Your task to perform on an android device: turn off wifi Image 0: 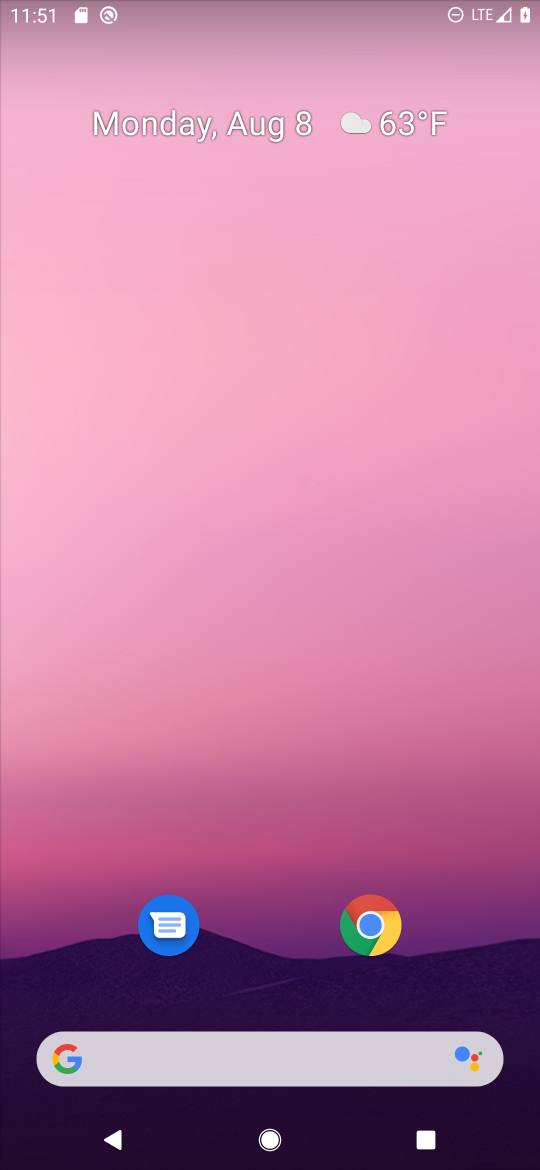
Step 0: drag from (265, 631) to (311, 104)
Your task to perform on an android device: turn off wifi Image 1: 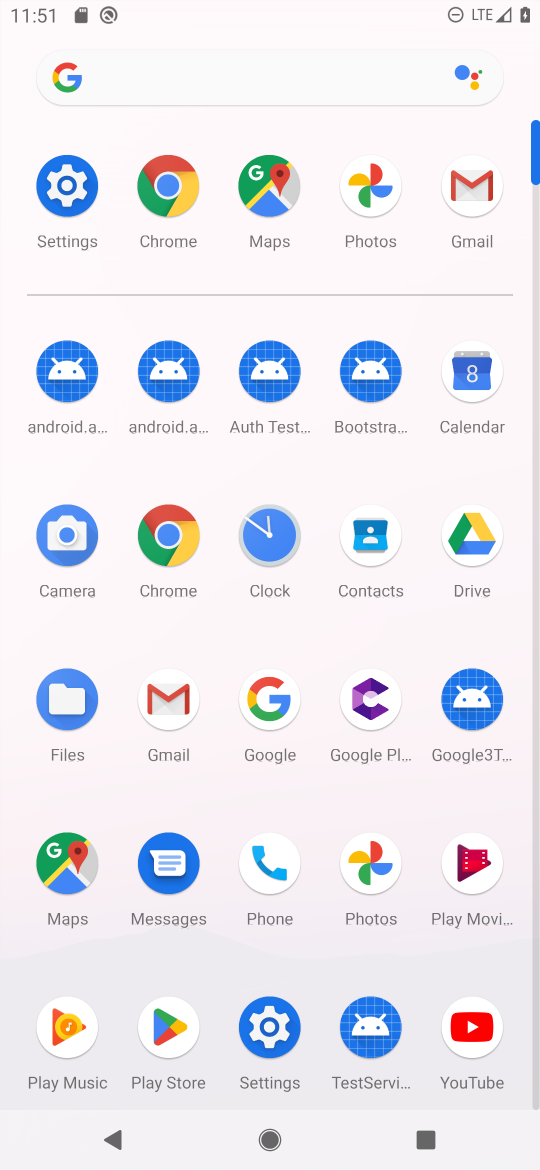
Step 1: click (271, 1036)
Your task to perform on an android device: turn off wifi Image 2: 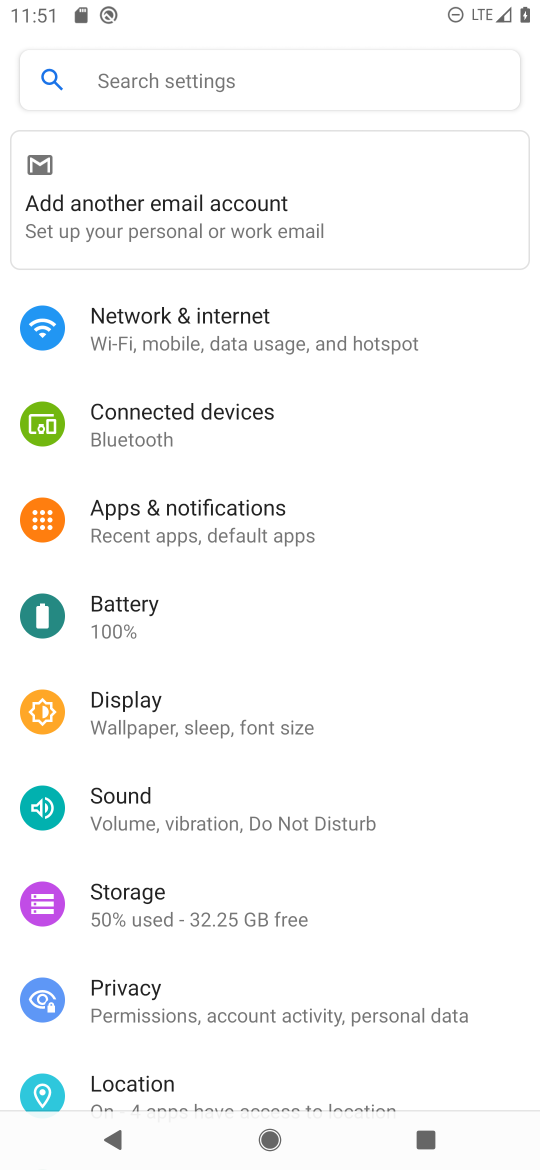
Step 2: click (149, 333)
Your task to perform on an android device: turn off wifi Image 3: 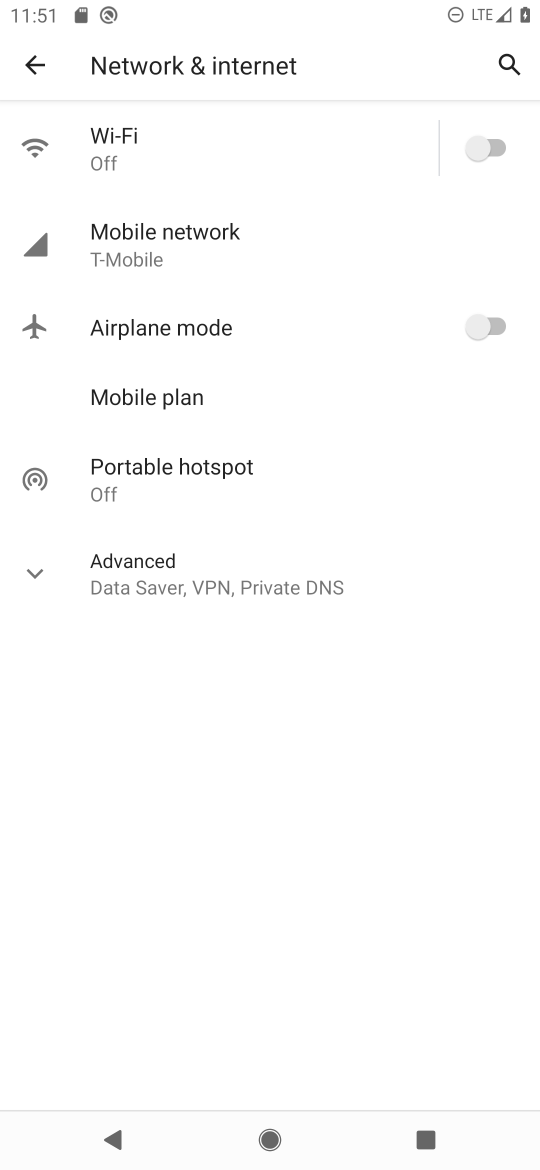
Step 3: click (180, 143)
Your task to perform on an android device: turn off wifi Image 4: 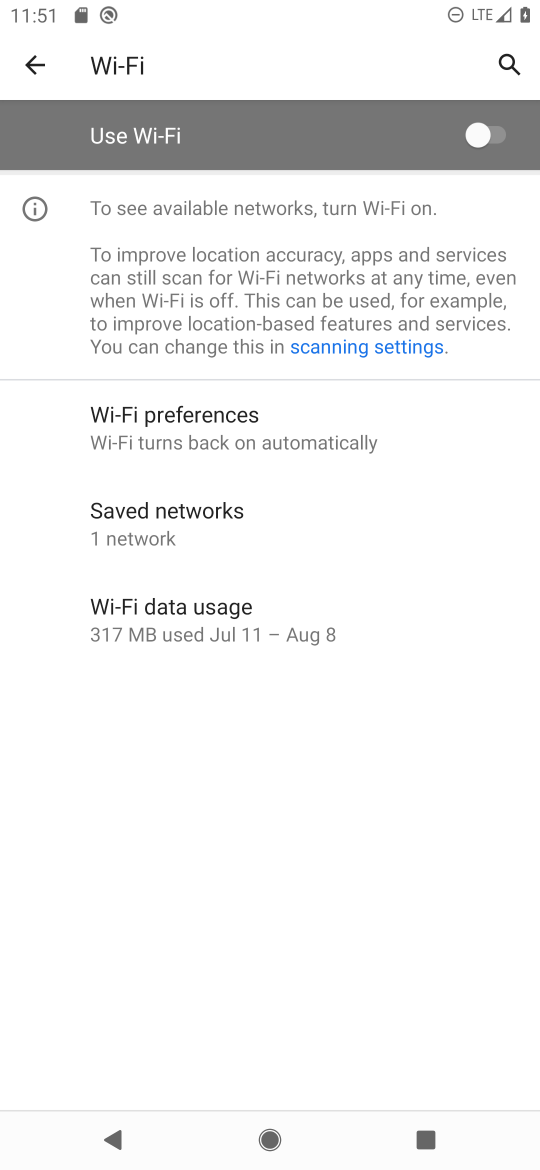
Step 4: task complete